Your task to perform on an android device: delete a single message in the gmail app Image 0: 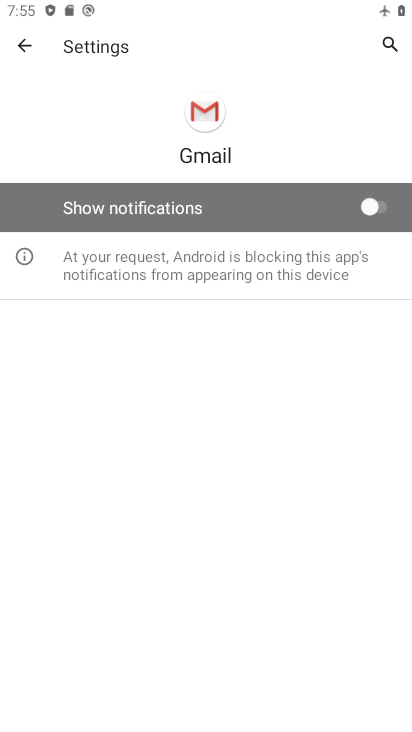
Step 0: click (32, 45)
Your task to perform on an android device: delete a single message in the gmail app Image 1: 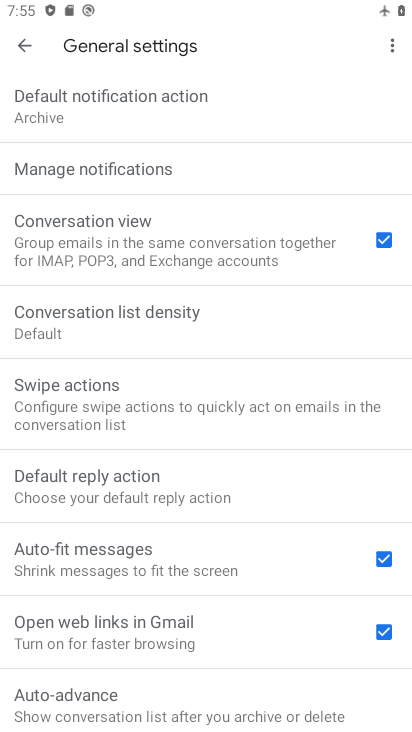
Step 1: click (14, 55)
Your task to perform on an android device: delete a single message in the gmail app Image 2: 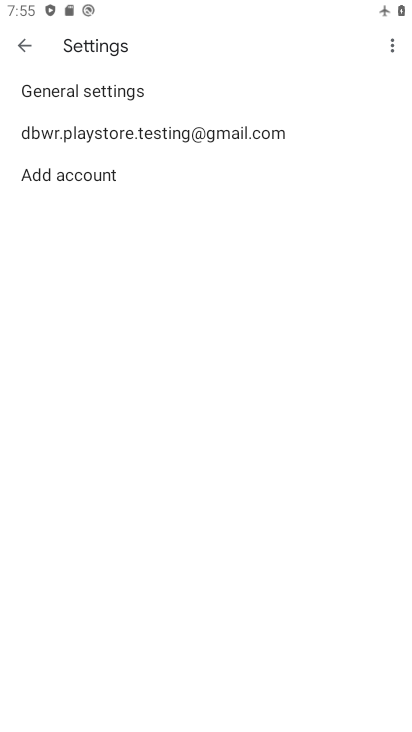
Step 2: click (15, 54)
Your task to perform on an android device: delete a single message in the gmail app Image 3: 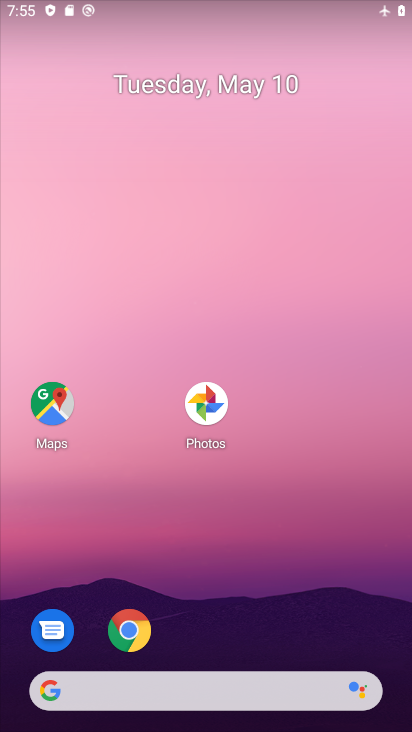
Step 3: drag from (201, 661) to (141, 33)
Your task to perform on an android device: delete a single message in the gmail app Image 4: 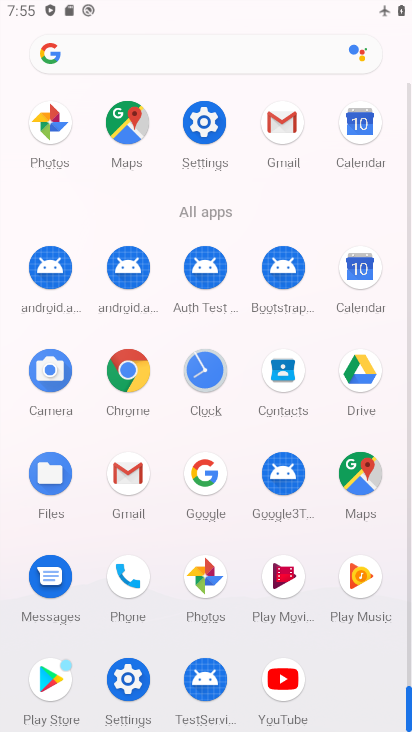
Step 4: click (121, 487)
Your task to perform on an android device: delete a single message in the gmail app Image 5: 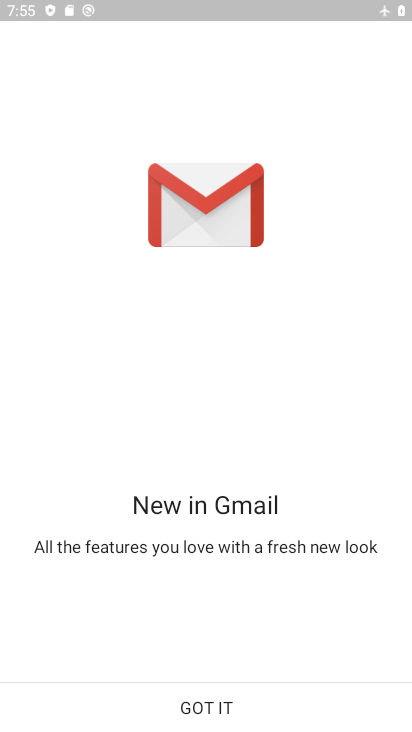
Step 5: click (176, 709)
Your task to perform on an android device: delete a single message in the gmail app Image 6: 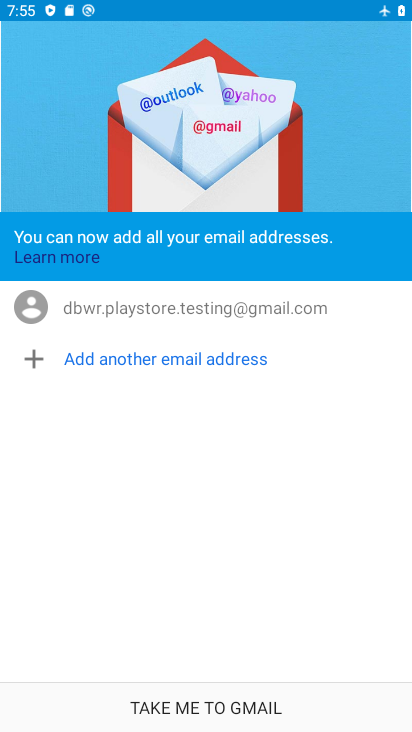
Step 6: click (169, 705)
Your task to perform on an android device: delete a single message in the gmail app Image 7: 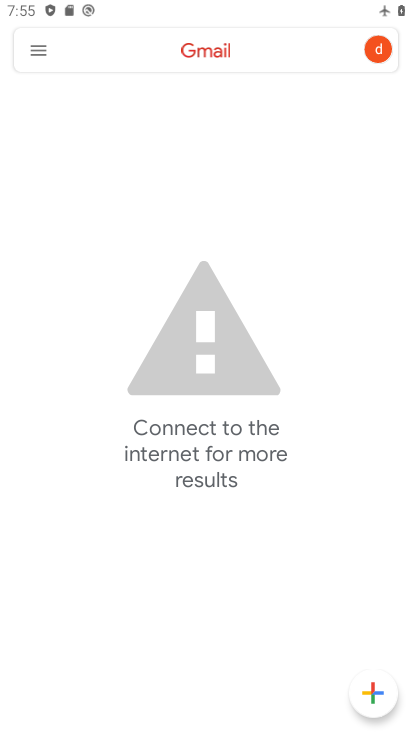
Step 7: task complete